Your task to perform on an android device: change the clock display to digital Image 0: 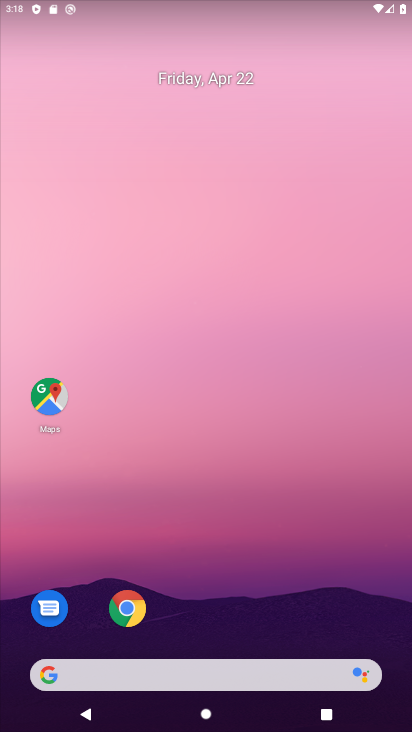
Step 0: drag from (249, 602) to (163, 229)
Your task to perform on an android device: change the clock display to digital Image 1: 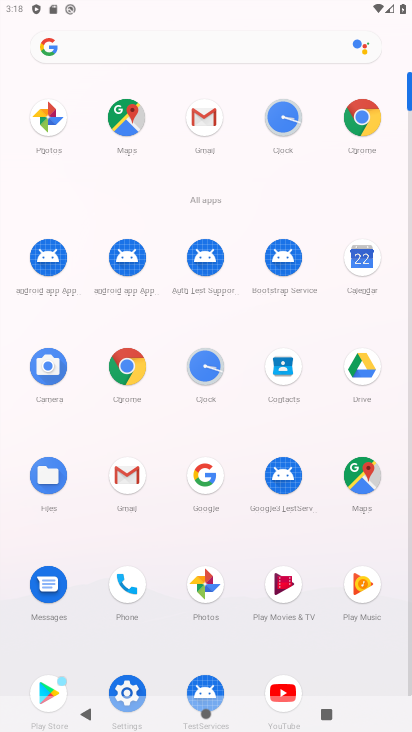
Step 1: click (285, 113)
Your task to perform on an android device: change the clock display to digital Image 2: 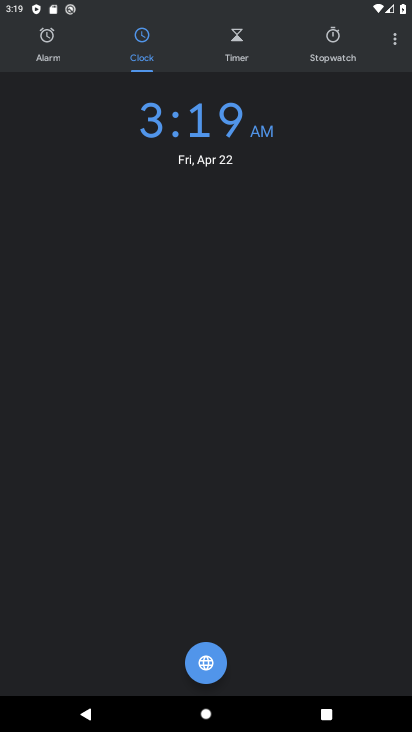
Step 2: click (391, 59)
Your task to perform on an android device: change the clock display to digital Image 3: 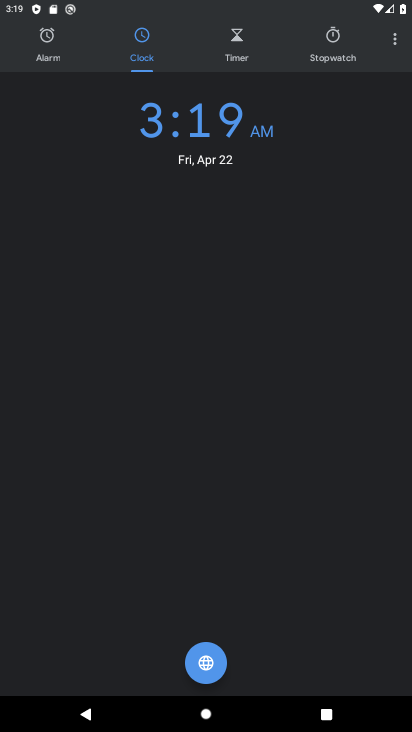
Step 3: click (396, 65)
Your task to perform on an android device: change the clock display to digital Image 4: 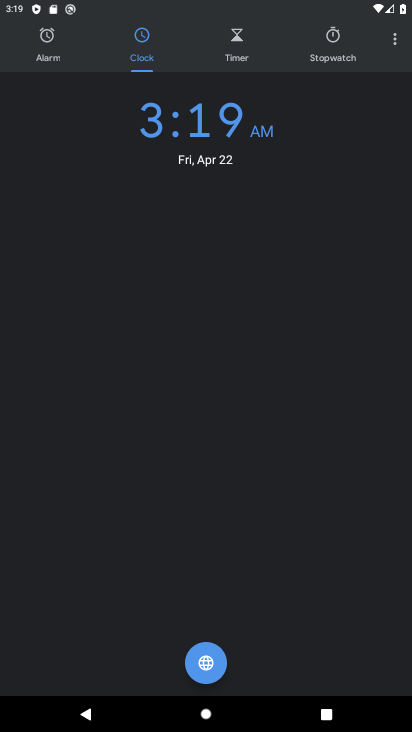
Step 4: click (396, 44)
Your task to perform on an android device: change the clock display to digital Image 5: 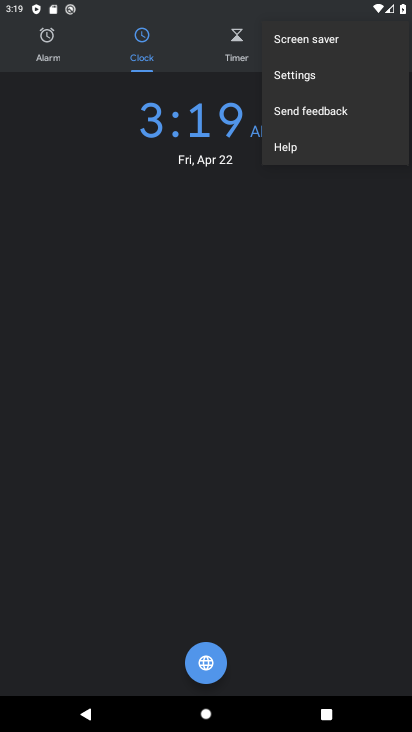
Step 5: click (371, 71)
Your task to perform on an android device: change the clock display to digital Image 6: 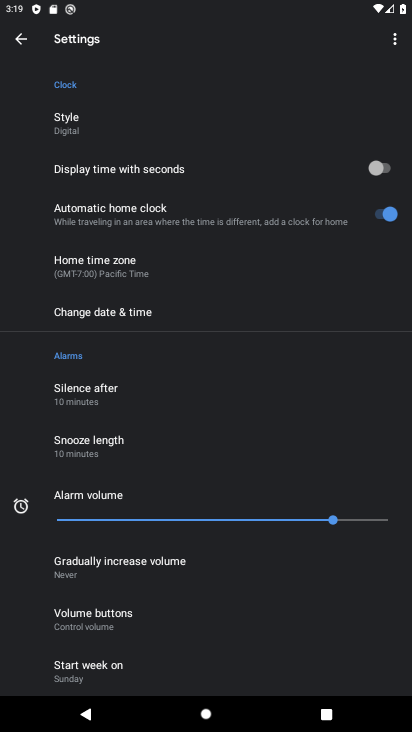
Step 6: click (115, 132)
Your task to perform on an android device: change the clock display to digital Image 7: 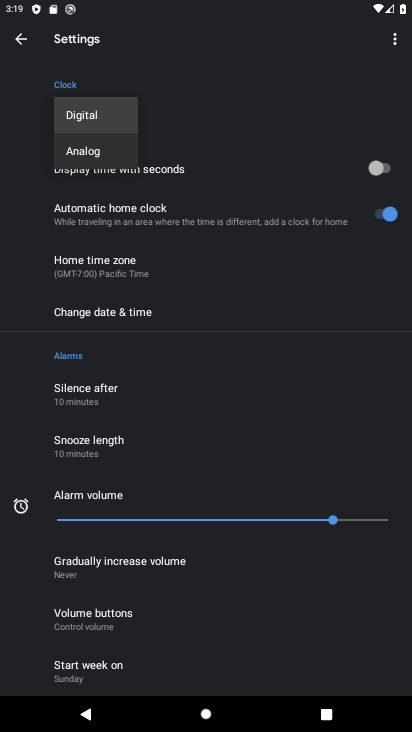
Step 7: task complete